Your task to perform on an android device: Open the stopwatch Image 0: 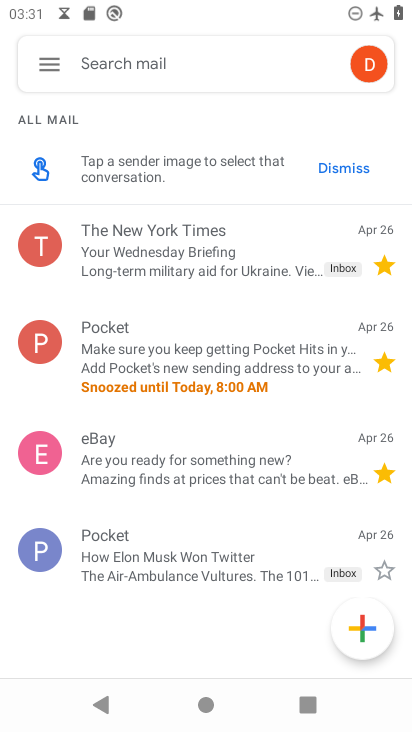
Step 0: press home button
Your task to perform on an android device: Open the stopwatch Image 1: 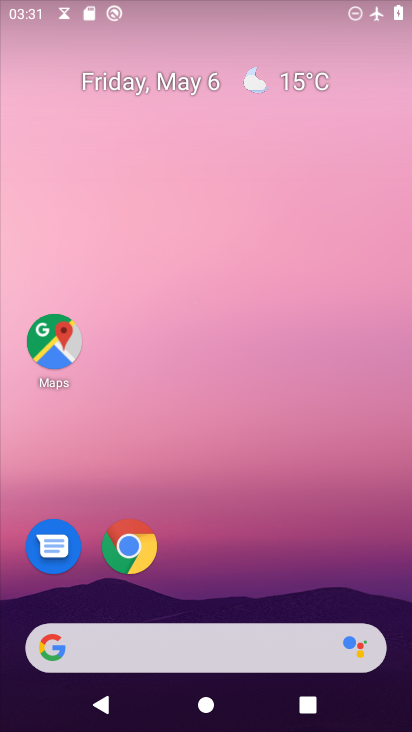
Step 1: drag from (251, 507) to (248, 115)
Your task to perform on an android device: Open the stopwatch Image 2: 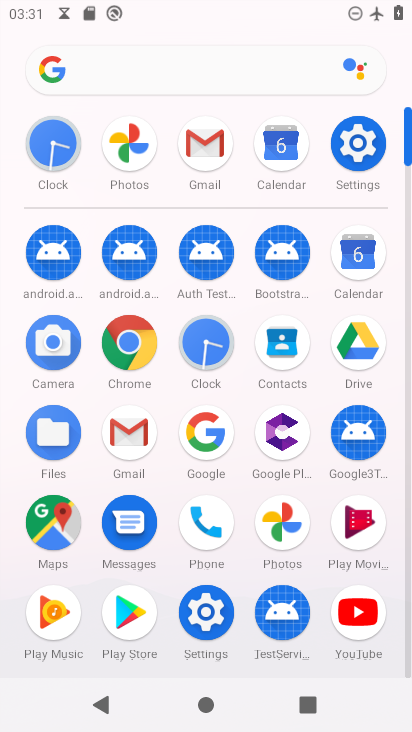
Step 2: click (193, 346)
Your task to perform on an android device: Open the stopwatch Image 3: 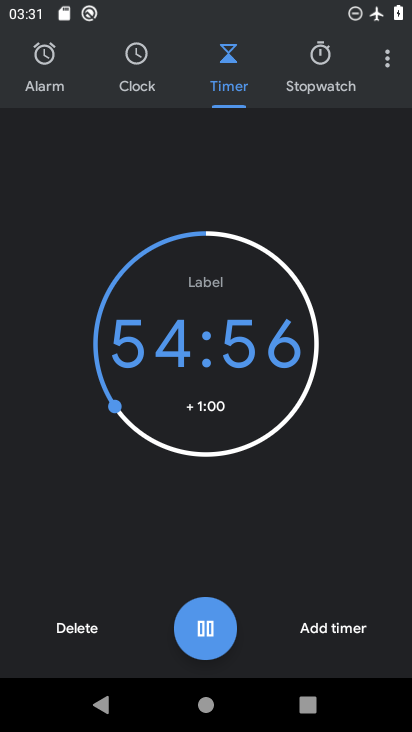
Step 3: click (331, 73)
Your task to perform on an android device: Open the stopwatch Image 4: 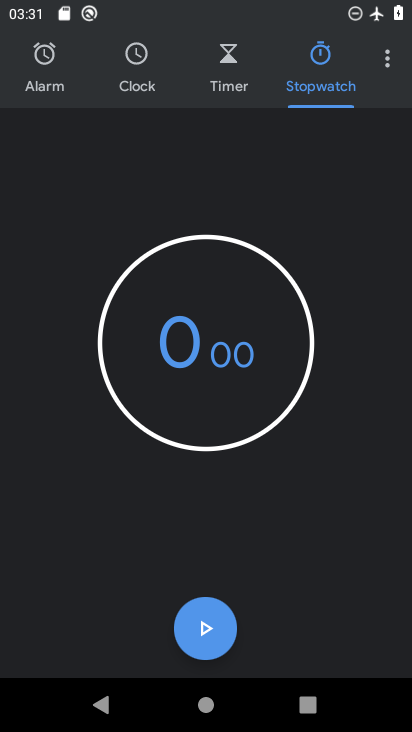
Step 4: click (207, 618)
Your task to perform on an android device: Open the stopwatch Image 5: 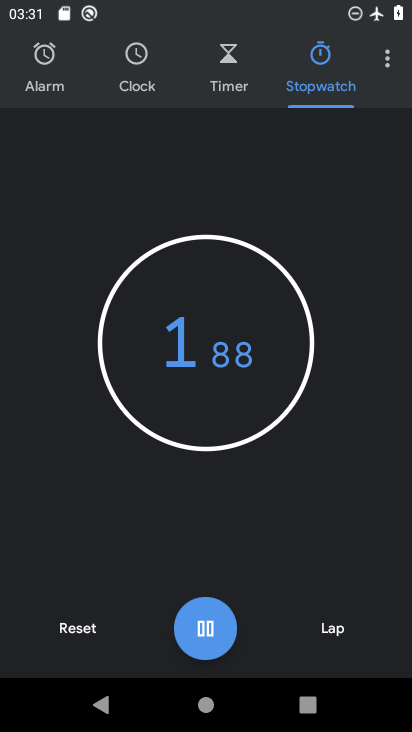
Step 5: task complete